Your task to perform on an android device: empty trash in google photos Image 0: 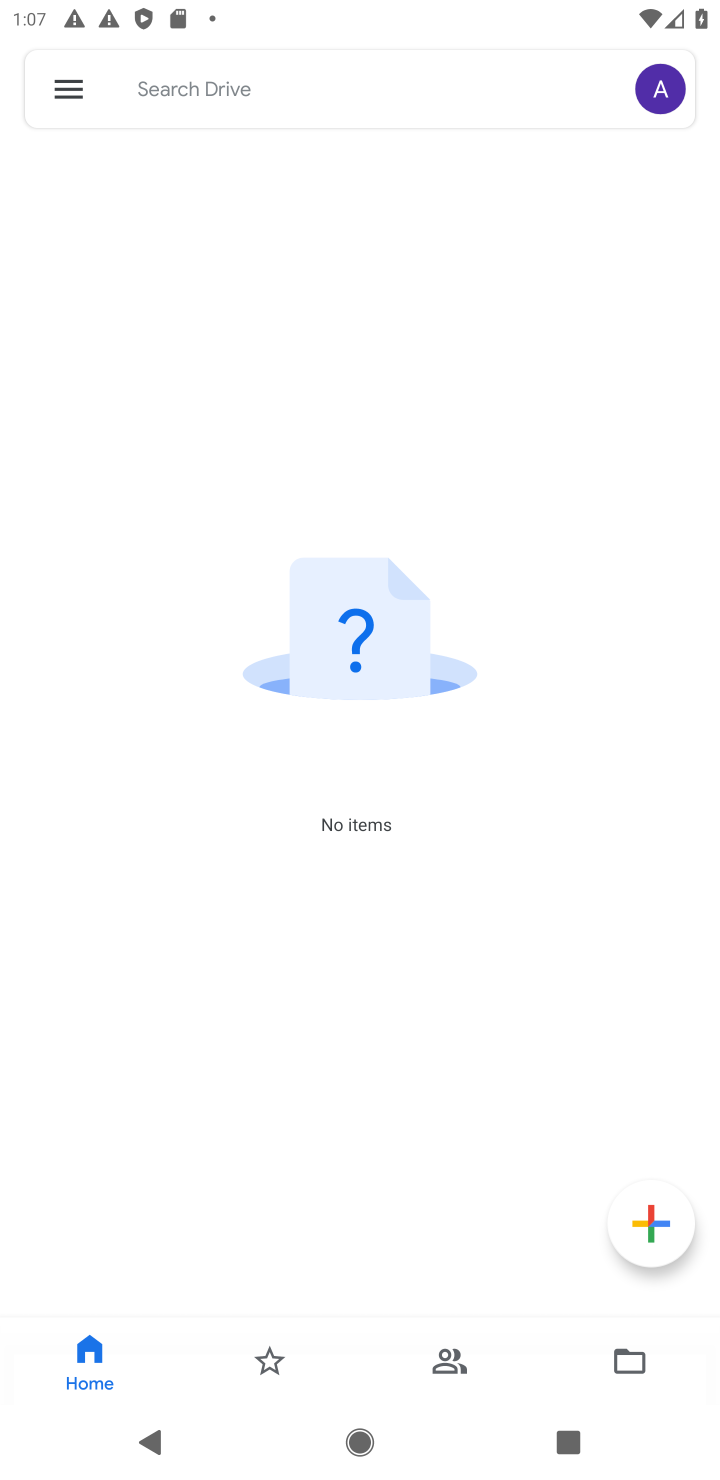
Step 0: press home button
Your task to perform on an android device: empty trash in google photos Image 1: 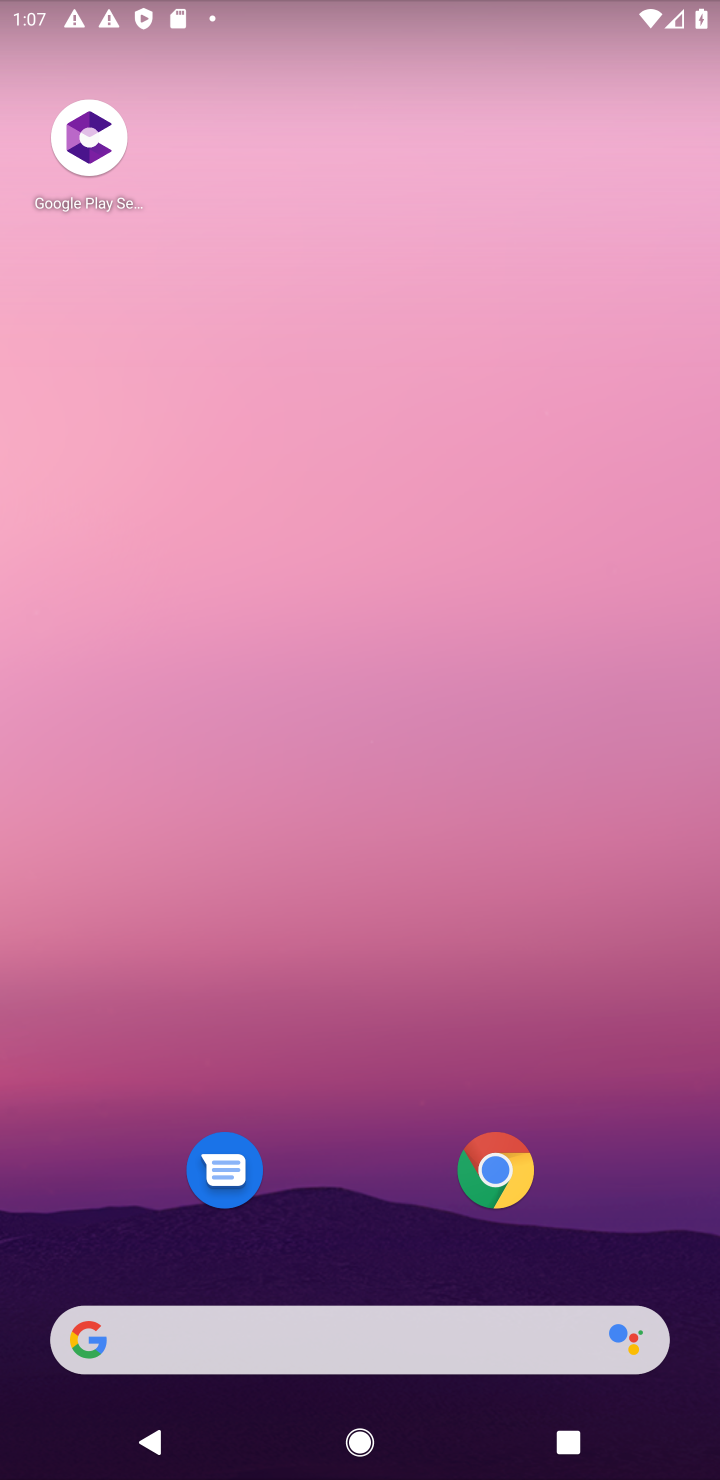
Step 1: drag from (328, 271) to (374, 10)
Your task to perform on an android device: empty trash in google photos Image 2: 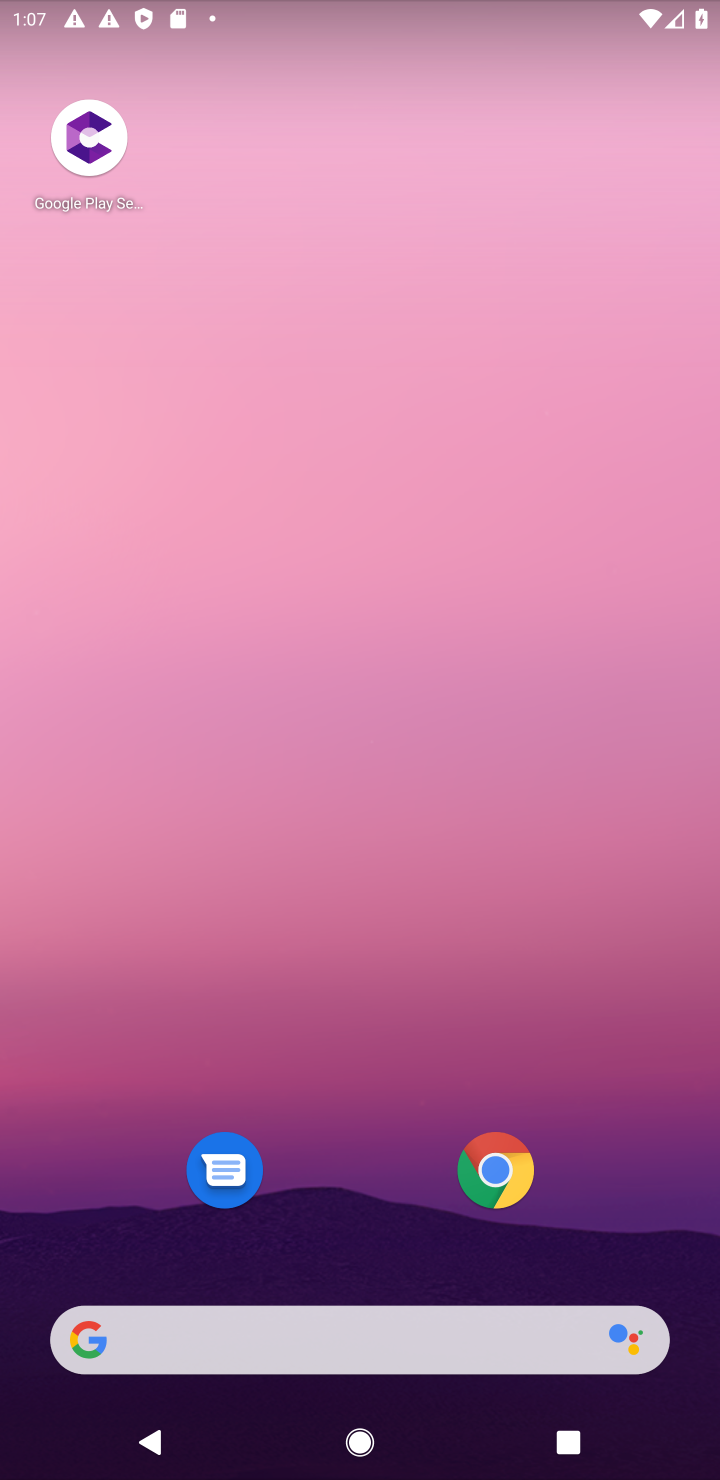
Step 2: drag from (383, 1215) to (282, 0)
Your task to perform on an android device: empty trash in google photos Image 3: 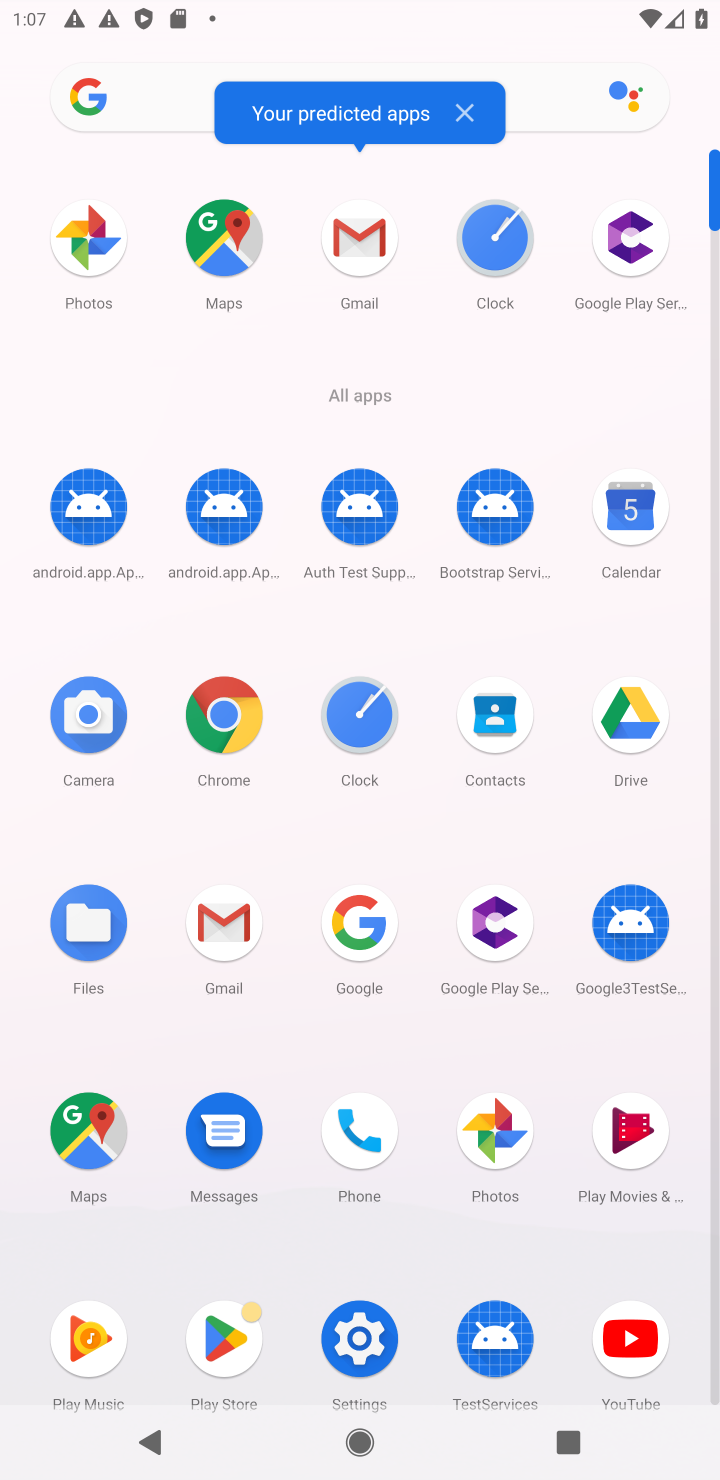
Step 3: click (507, 1156)
Your task to perform on an android device: empty trash in google photos Image 4: 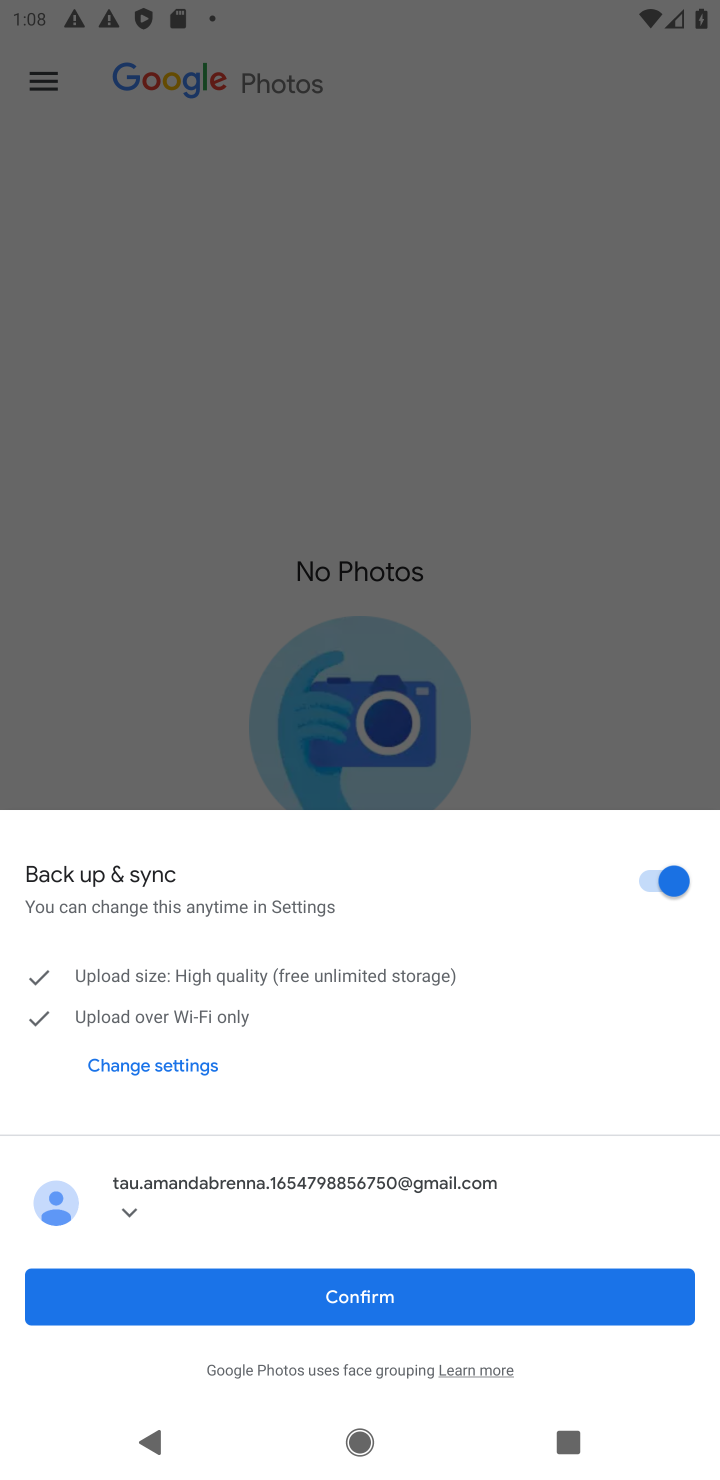
Step 4: click (537, 1313)
Your task to perform on an android device: empty trash in google photos Image 5: 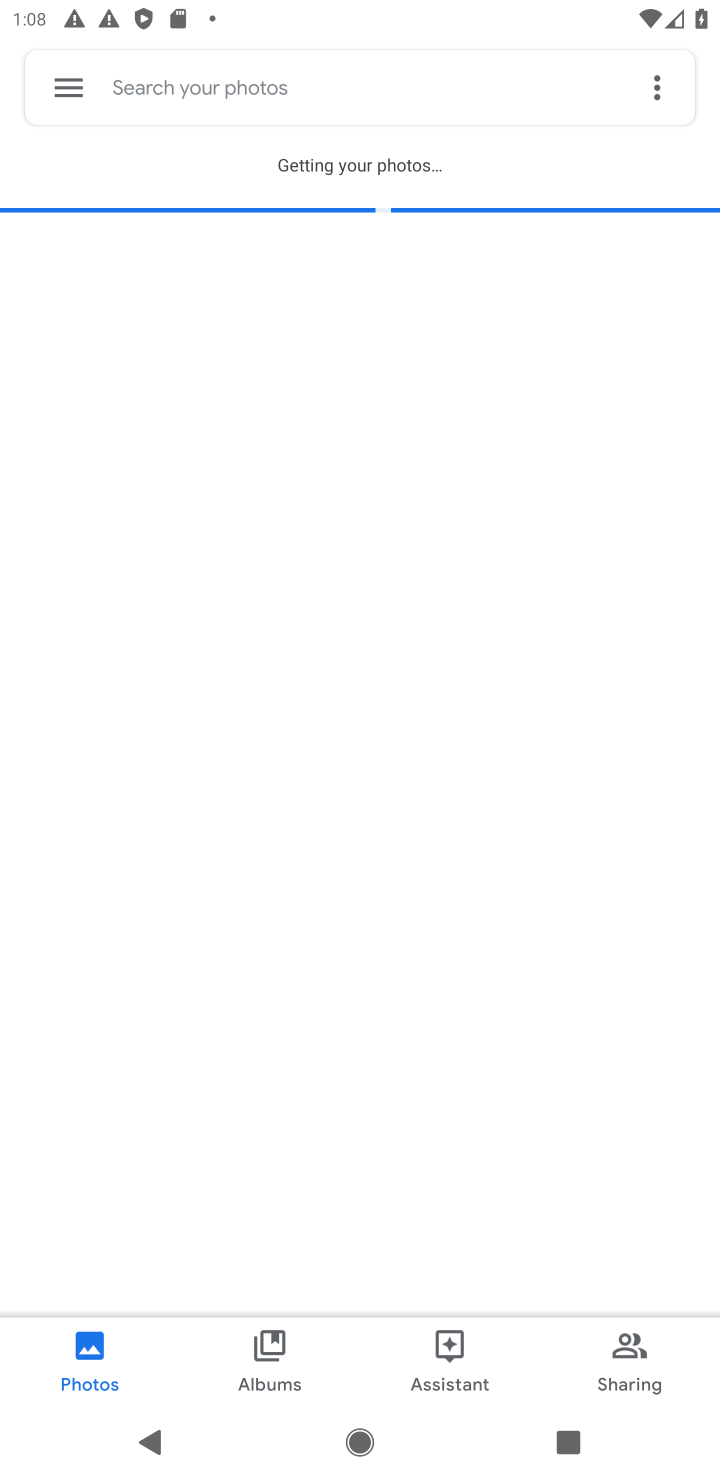
Step 5: click (62, 86)
Your task to perform on an android device: empty trash in google photos Image 6: 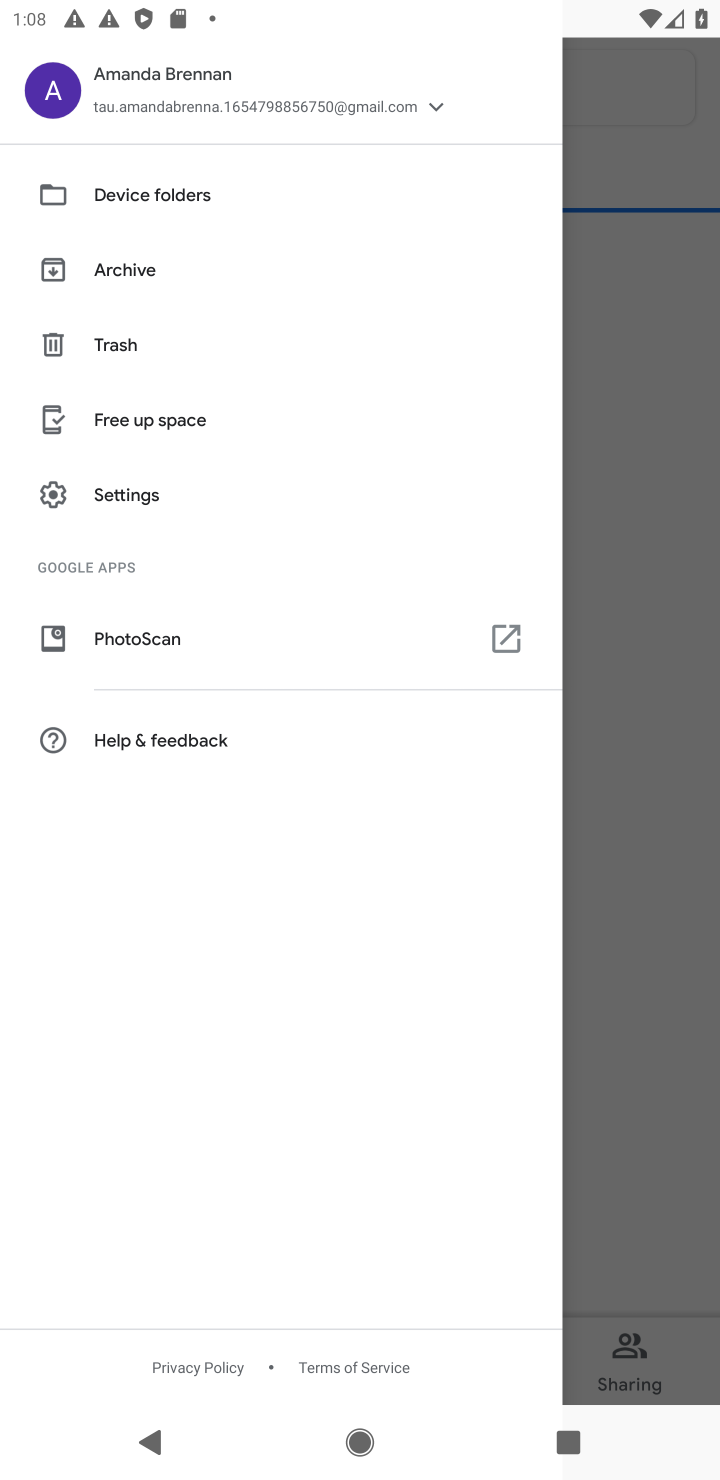
Step 6: click (147, 353)
Your task to perform on an android device: empty trash in google photos Image 7: 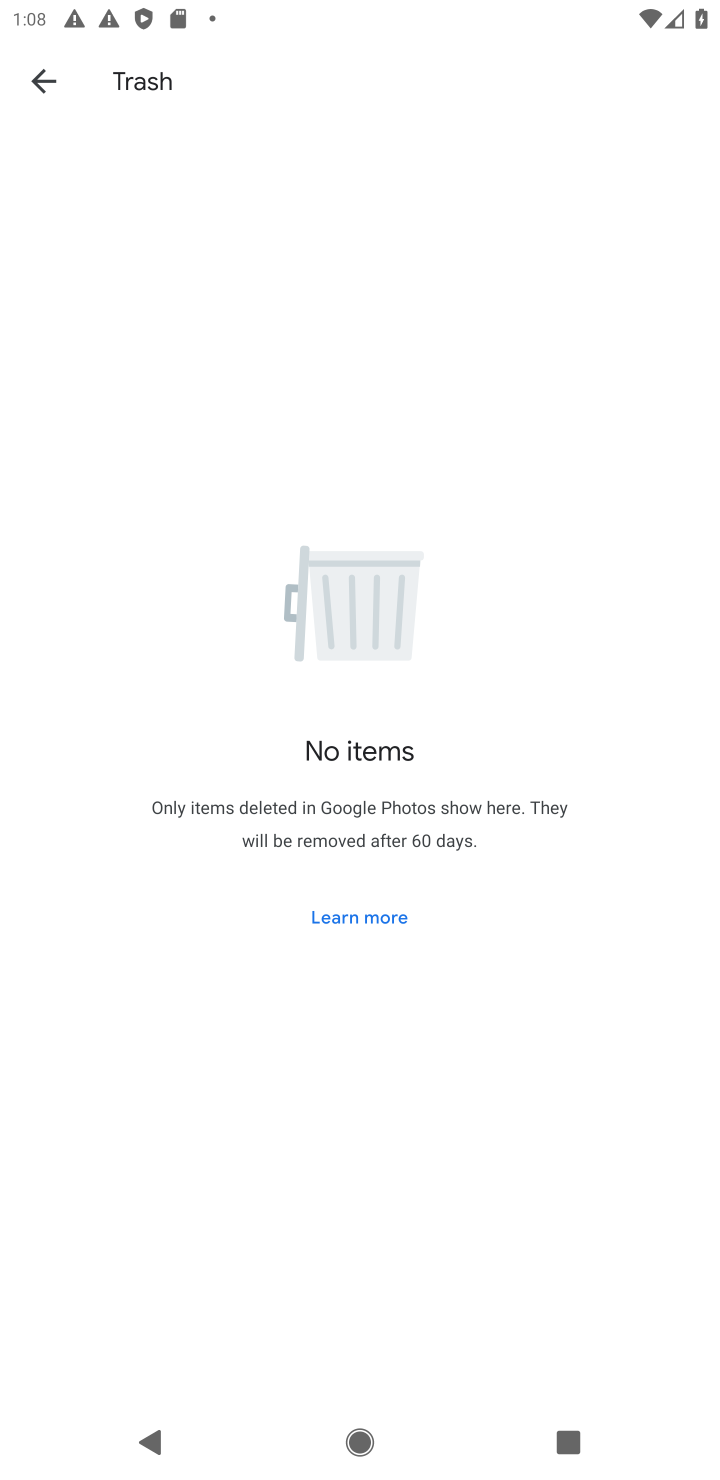
Step 7: task complete